Your task to perform on an android device: add a label to a message in the gmail app Image 0: 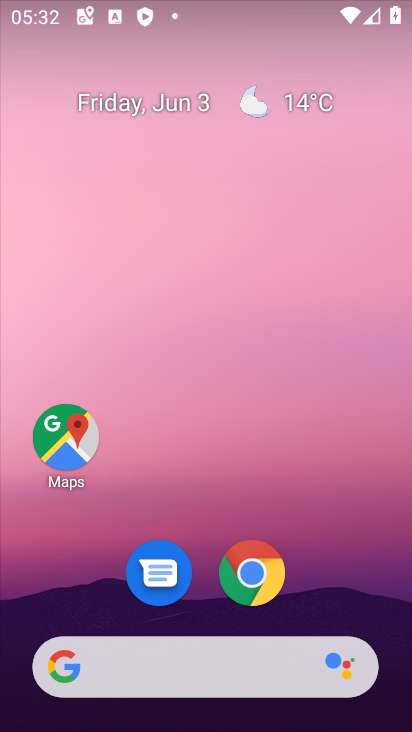
Step 0: drag from (296, 633) to (322, 8)
Your task to perform on an android device: add a label to a message in the gmail app Image 1: 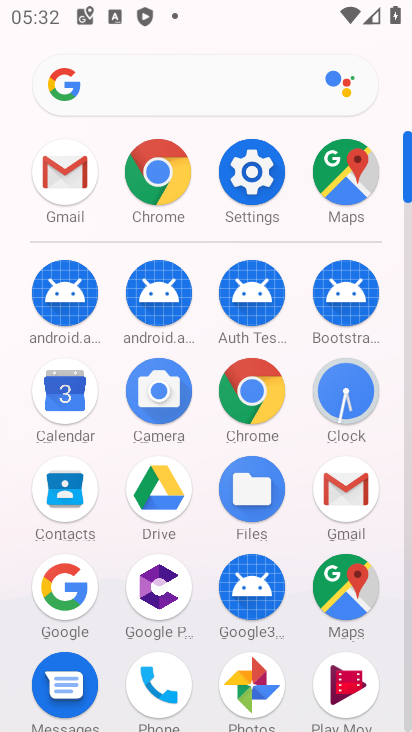
Step 1: click (348, 487)
Your task to perform on an android device: add a label to a message in the gmail app Image 2: 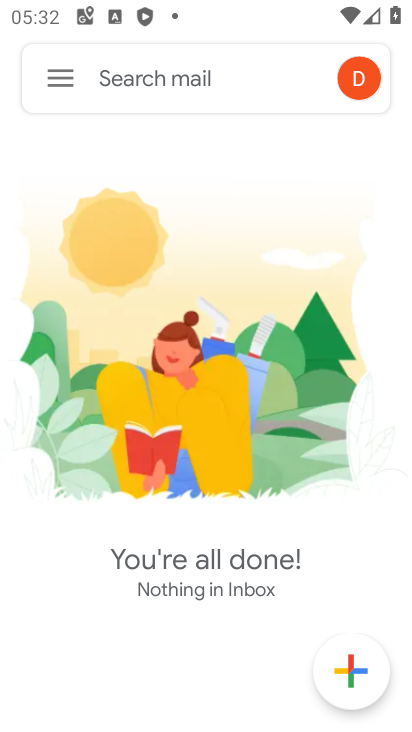
Step 2: click (60, 69)
Your task to perform on an android device: add a label to a message in the gmail app Image 3: 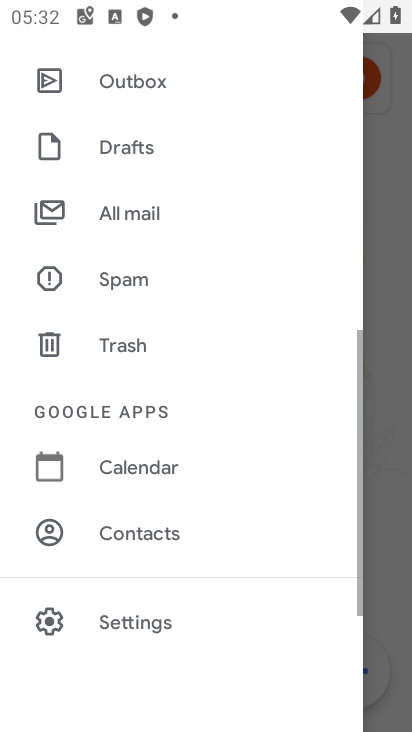
Step 3: task complete